Your task to perform on an android device: Go to battery settings Image 0: 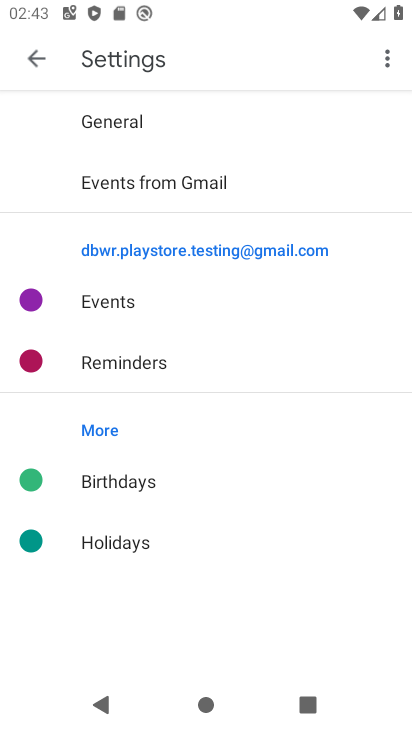
Step 0: press home button
Your task to perform on an android device: Go to battery settings Image 1: 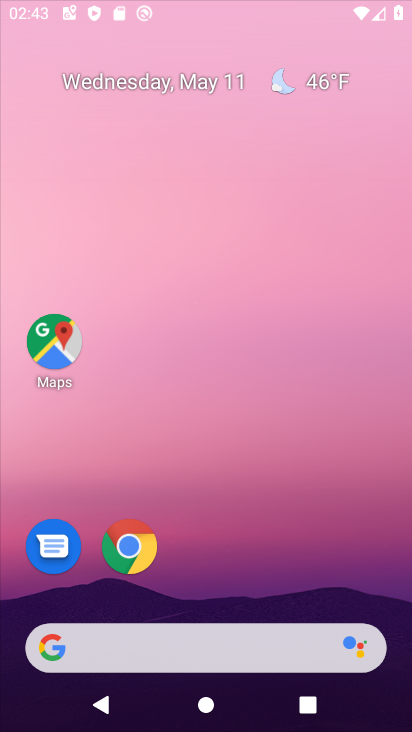
Step 1: drag from (244, 533) to (293, 29)
Your task to perform on an android device: Go to battery settings Image 2: 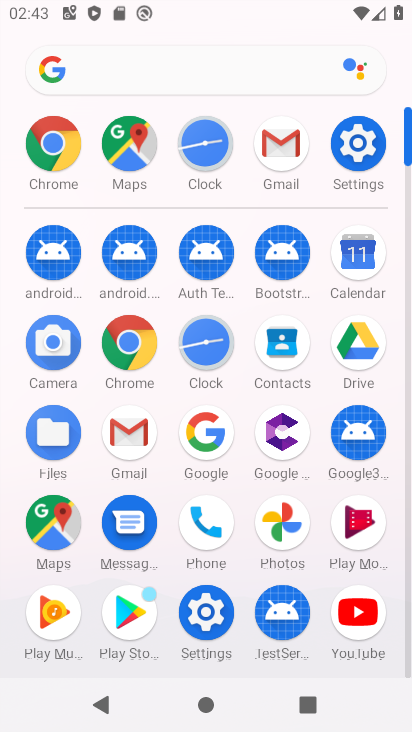
Step 2: click (356, 129)
Your task to perform on an android device: Go to battery settings Image 3: 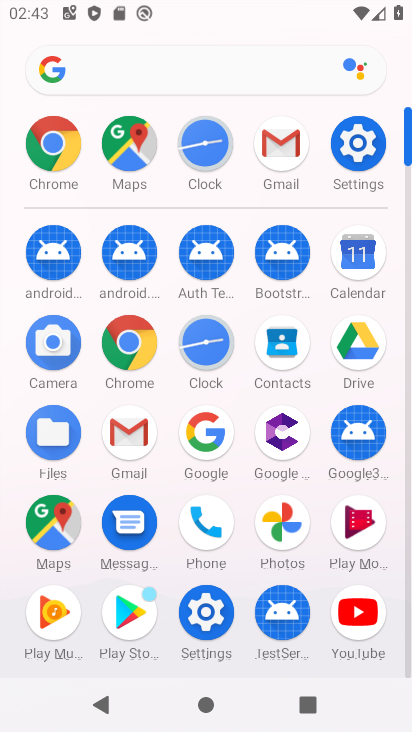
Step 3: click (356, 129)
Your task to perform on an android device: Go to battery settings Image 4: 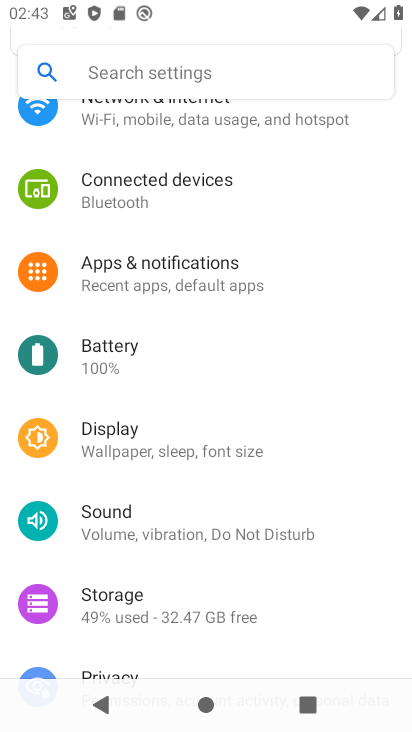
Step 4: click (114, 368)
Your task to perform on an android device: Go to battery settings Image 5: 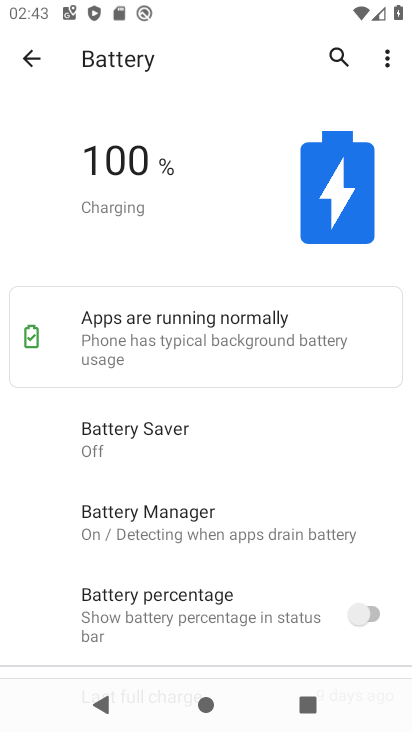
Step 5: task complete